Your task to perform on an android device: Do I have any events today? Image 0: 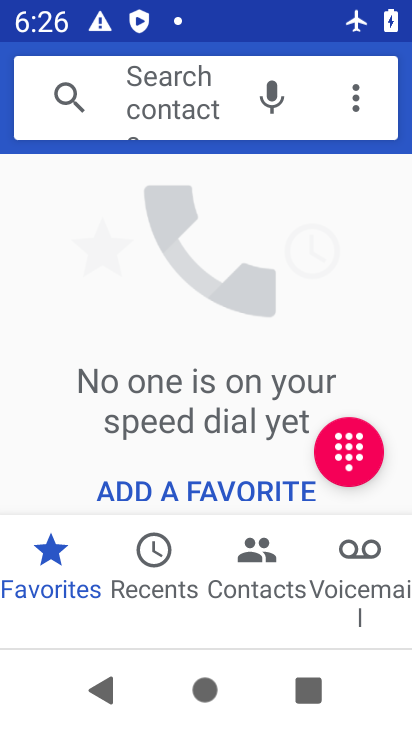
Step 0: drag from (222, 400) to (264, 173)
Your task to perform on an android device: Do I have any events today? Image 1: 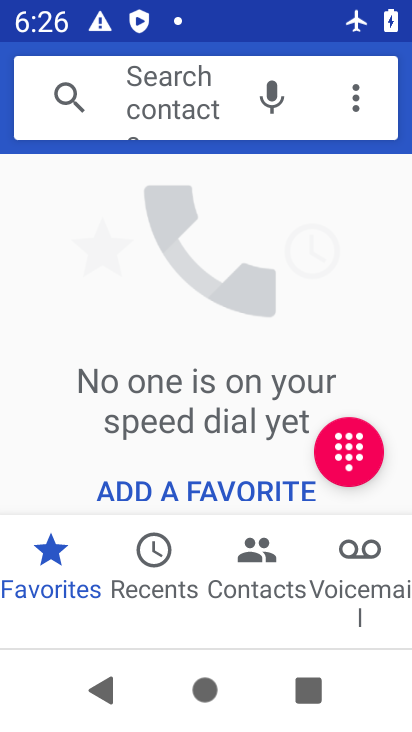
Step 1: drag from (177, 427) to (190, 196)
Your task to perform on an android device: Do I have any events today? Image 2: 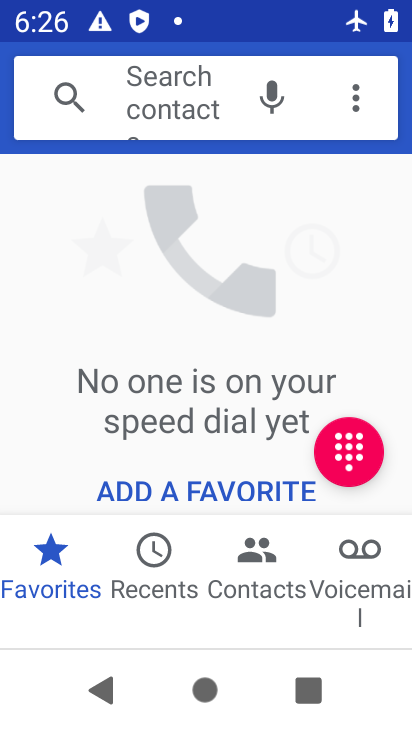
Step 2: press home button
Your task to perform on an android device: Do I have any events today? Image 3: 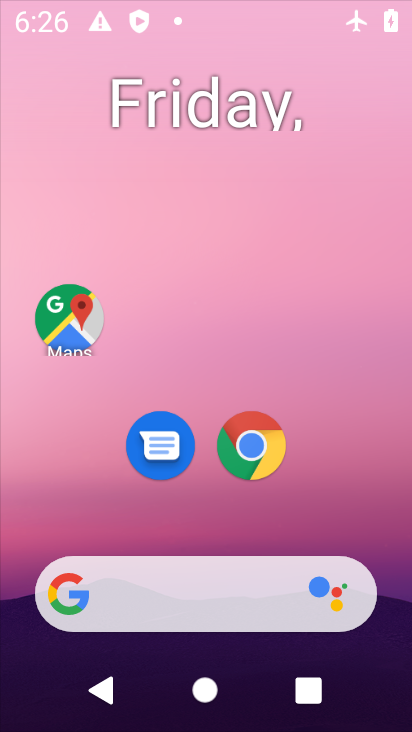
Step 3: drag from (243, 494) to (289, 160)
Your task to perform on an android device: Do I have any events today? Image 4: 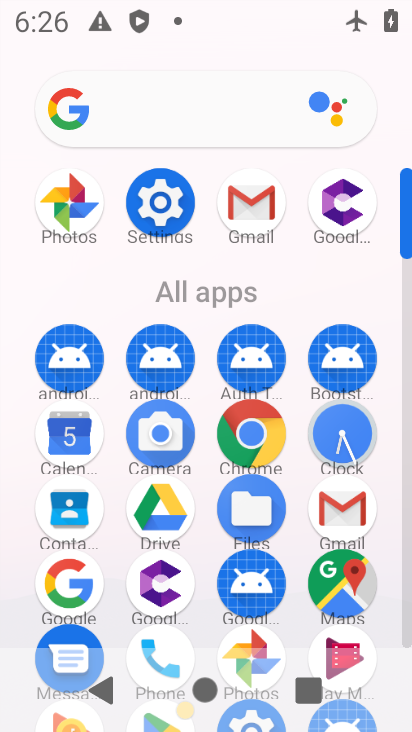
Step 4: click (71, 418)
Your task to perform on an android device: Do I have any events today? Image 5: 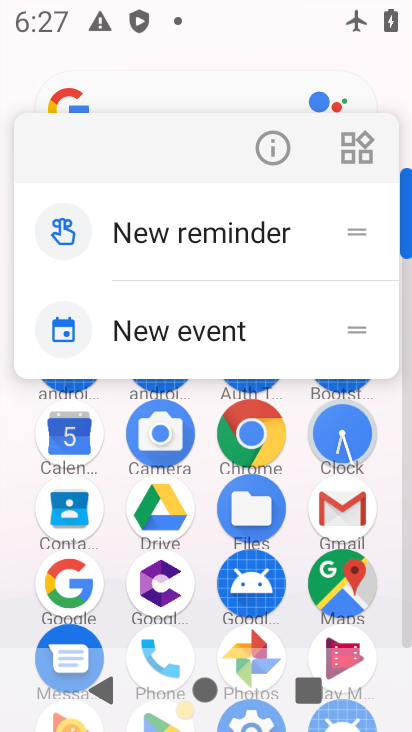
Step 5: click (281, 133)
Your task to perform on an android device: Do I have any events today? Image 6: 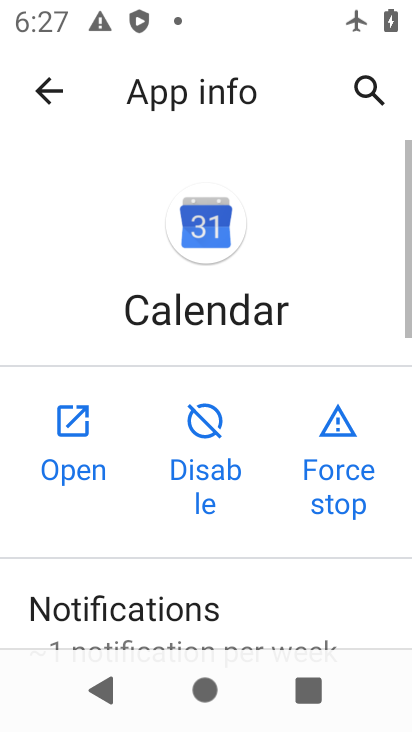
Step 6: click (79, 425)
Your task to perform on an android device: Do I have any events today? Image 7: 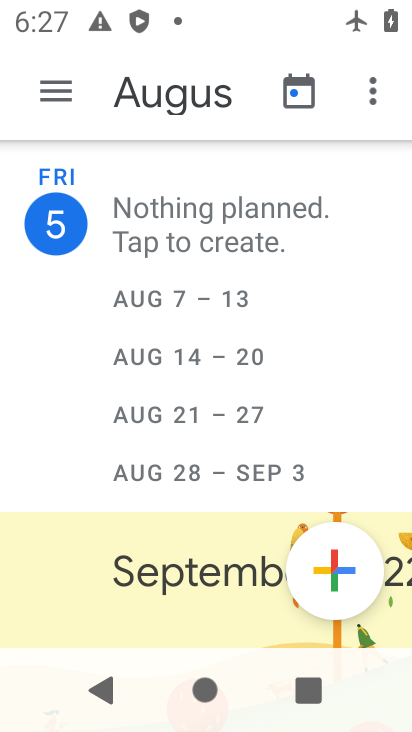
Step 7: click (311, 100)
Your task to perform on an android device: Do I have any events today? Image 8: 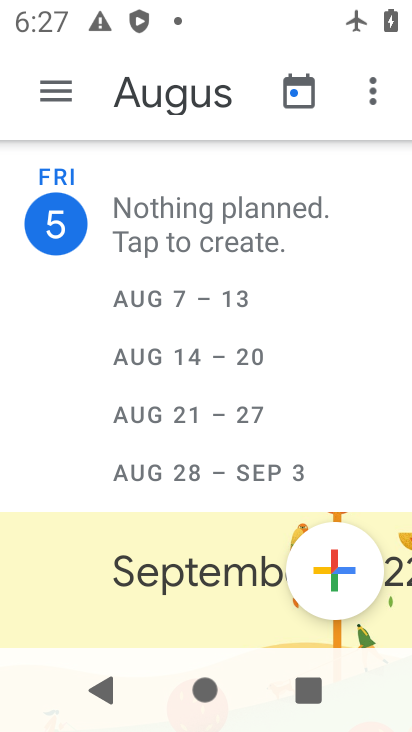
Step 8: click (309, 99)
Your task to perform on an android device: Do I have any events today? Image 9: 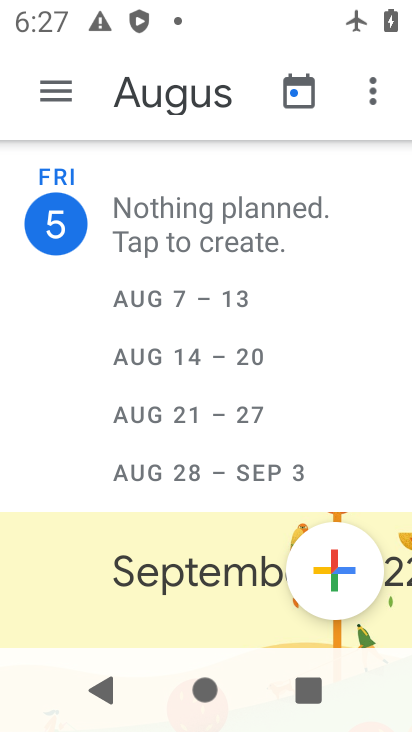
Step 9: click (310, 107)
Your task to perform on an android device: Do I have any events today? Image 10: 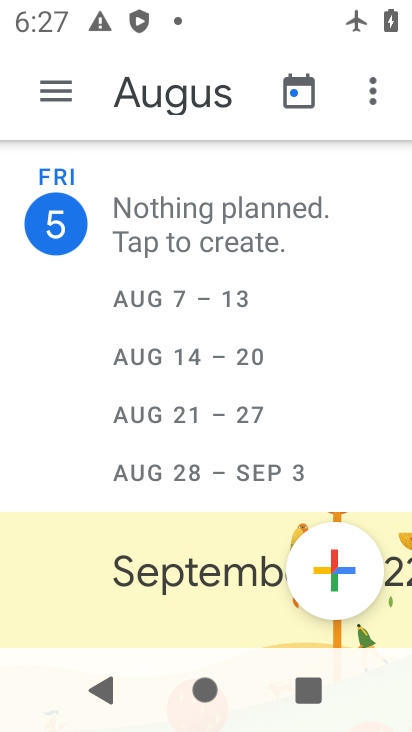
Step 10: task complete